Your task to perform on an android device: Open Chrome and go to settings Image 0: 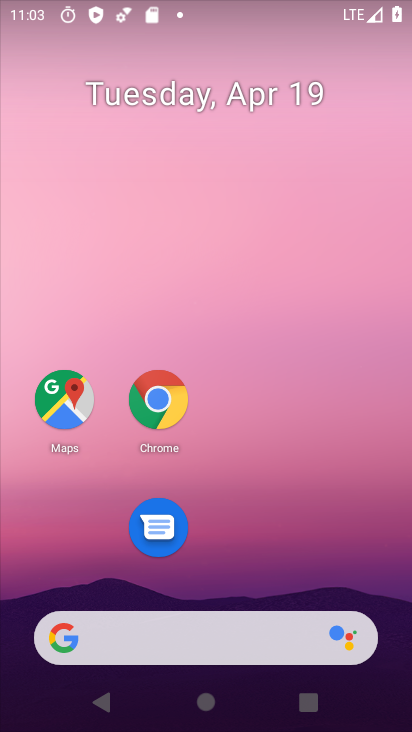
Step 0: drag from (256, 669) to (202, 161)
Your task to perform on an android device: Open Chrome and go to settings Image 1: 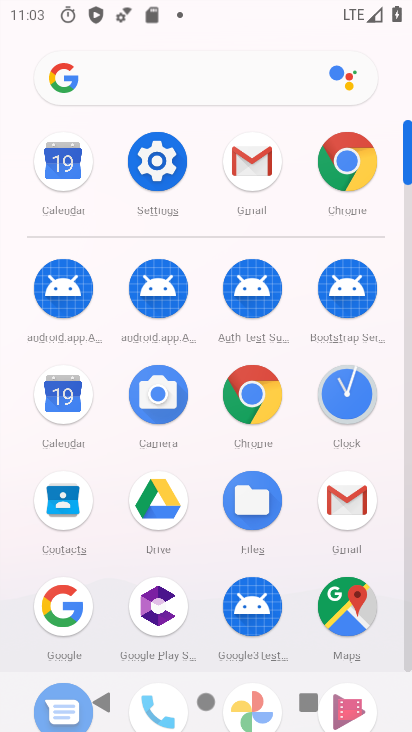
Step 1: click (147, 184)
Your task to perform on an android device: Open Chrome and go to settings Image 2: 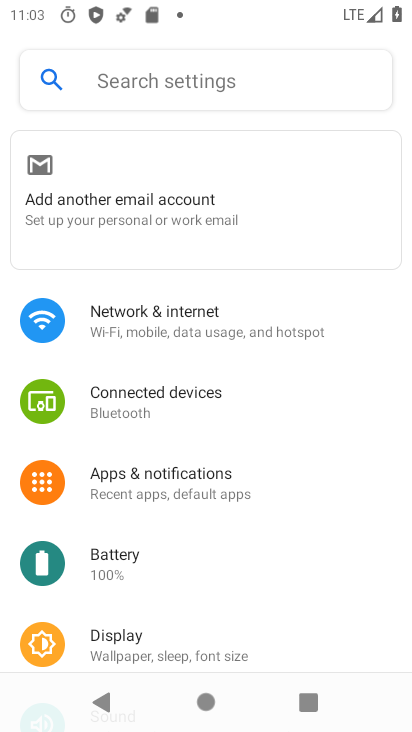
Step 2: press home button
Your task to perform on an android device: Open Chrome and go to settings Image 3: 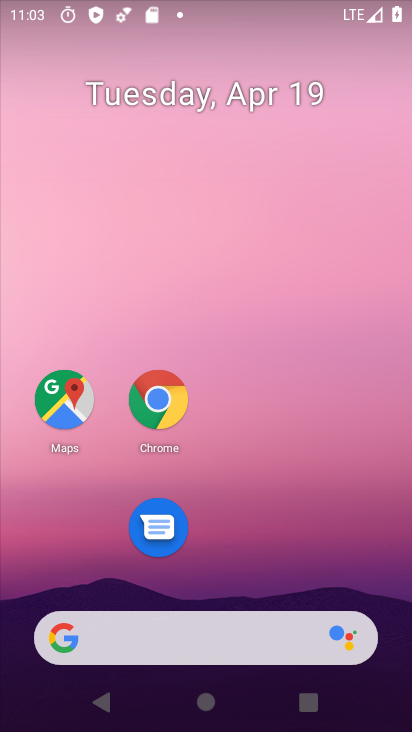
Step 3: click (175, 400)
Your task to perform on an android device: Open Chrome and go to settings Image 4: 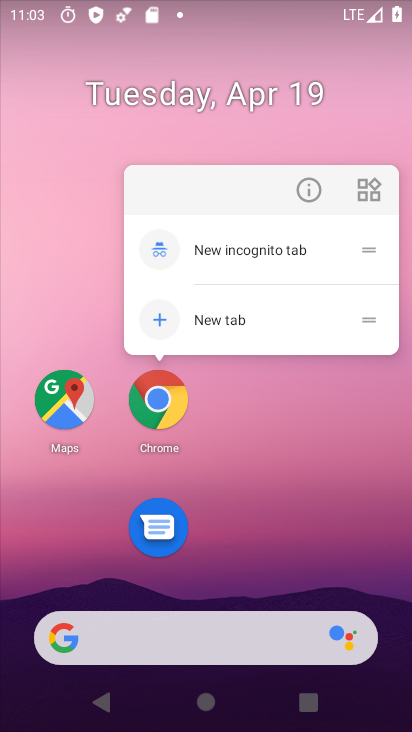
Step 4: click (163, 394)
Your task to perform on an android device: Open Chrome and go to settings Image 5: 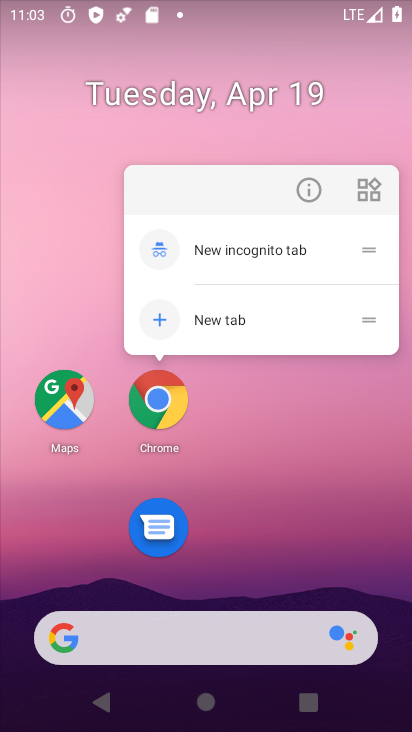
Step 5: click (246, 519)
Your task to perform on an android device: Open Chrome and go to settings Image 6: 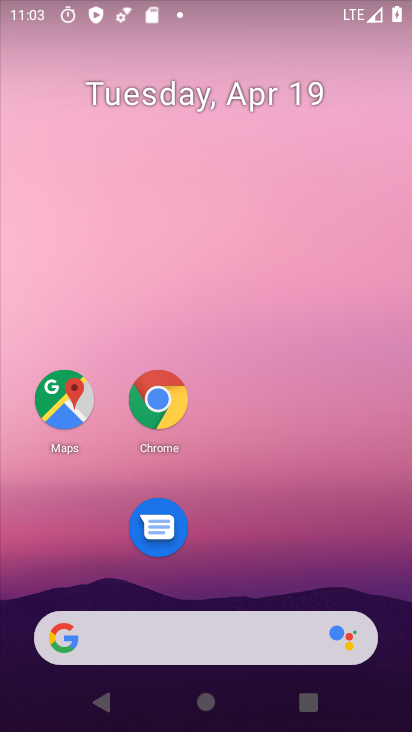
Step 6: drag from (240, 409) to (202, 121)
Your task to perform on an android device: Open Chrome and go to settings Image 7: 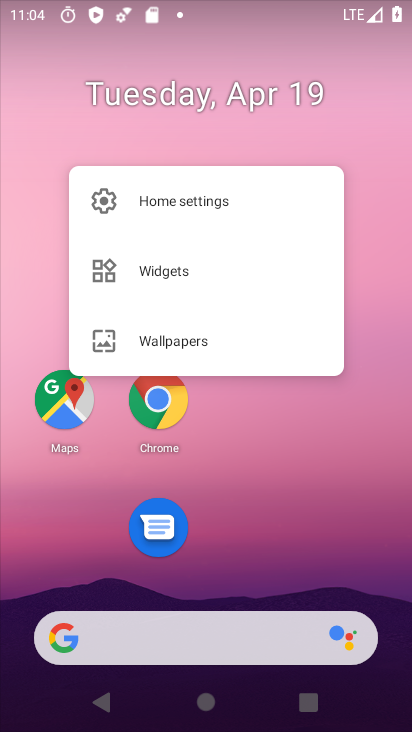
Step 7: drag from (243, 681) to (216, 410)
Your task to perform on an android device: Open Chrome and go to settings Image 8: 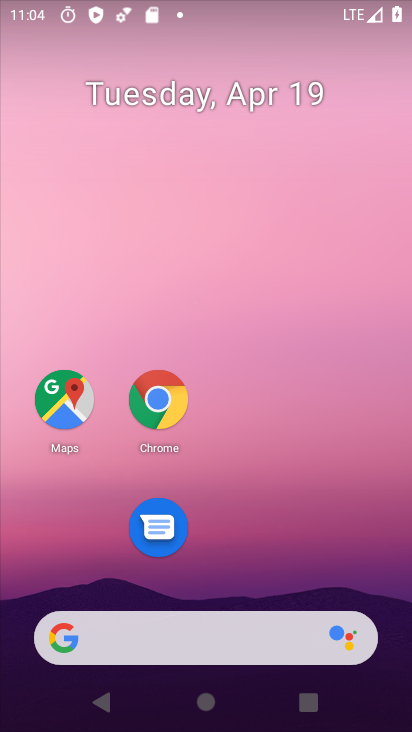
Step 8: drag from (201, 581) to (216, 107)
Your task to perform on an android device: Open Chrome and go to settings Image 9: 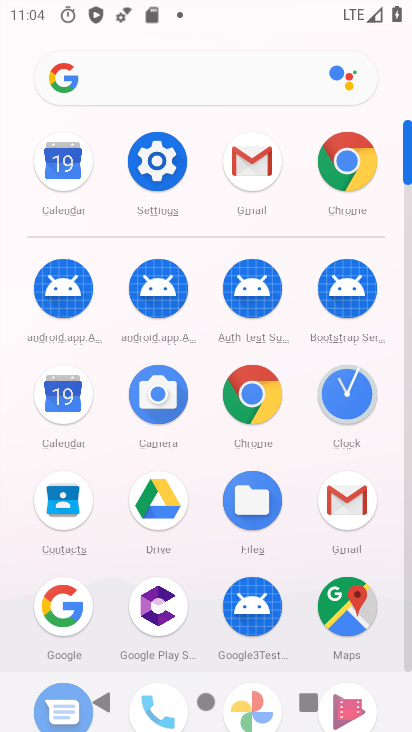
Step 9: click (334, 168)
Your task to perform on an android device: Open Chrome and go to settings Image 10: 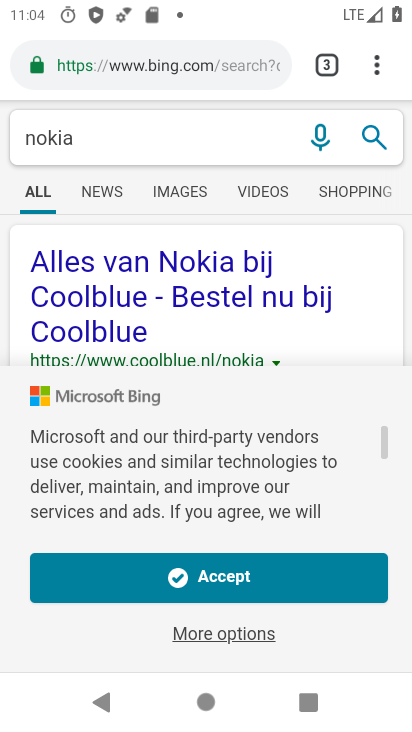
Step 10: click (370, 73)
Your task to perform on an android device: Open Chrome and go to settings Image 11: 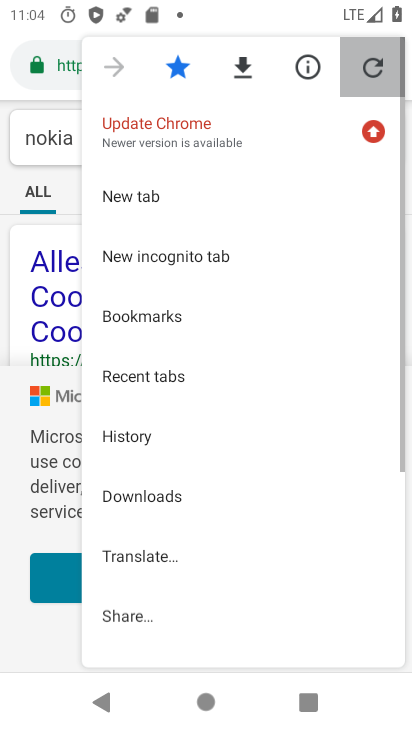
Step 11: click (376, 57)
Your task to perform on an android device: Open Chrome and go to settings Image 12: 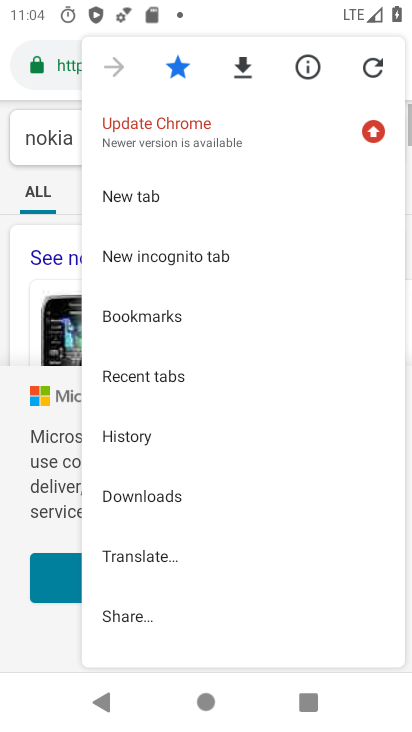
Step 12: drag from (155, 577) to (164, 432)
Your task to perform on an android device: Open Chrome and go to settings Image 13: 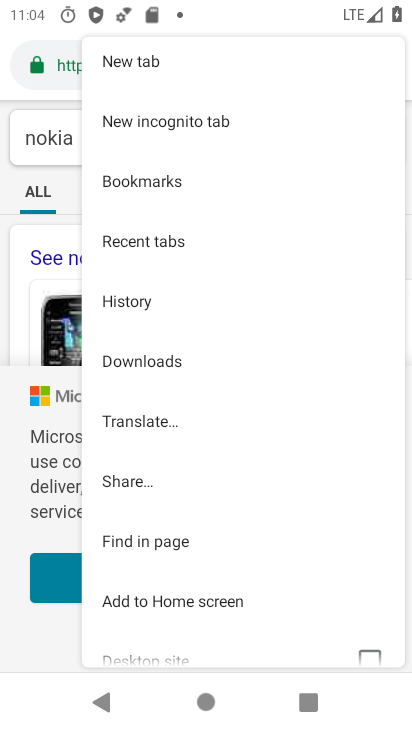
Step 13: drag from (149, 618) to (152, 492)
Your task to perform on an android device: Open Chrome and go to settings Image 14: 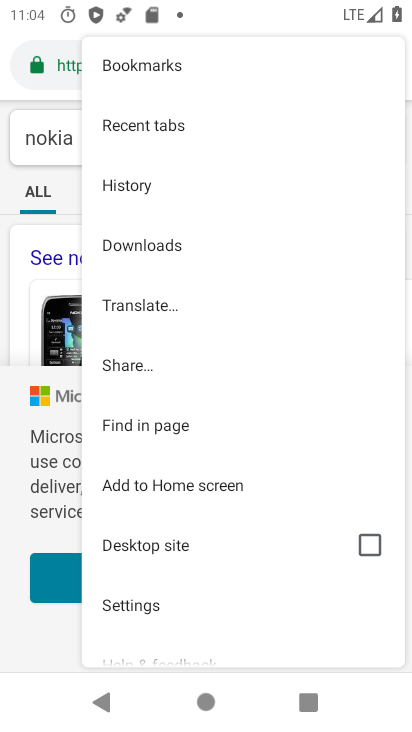
Step 14: click (148, 608)
Your task to perform on an android device: Open Chrome and go to settings Image 15: 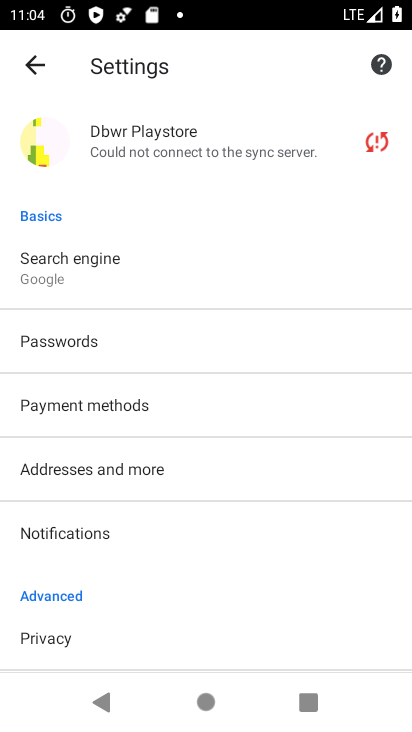
Step 15: task complete